Your task to perform on an android device: Is it going to rain this weekend? Image 0: 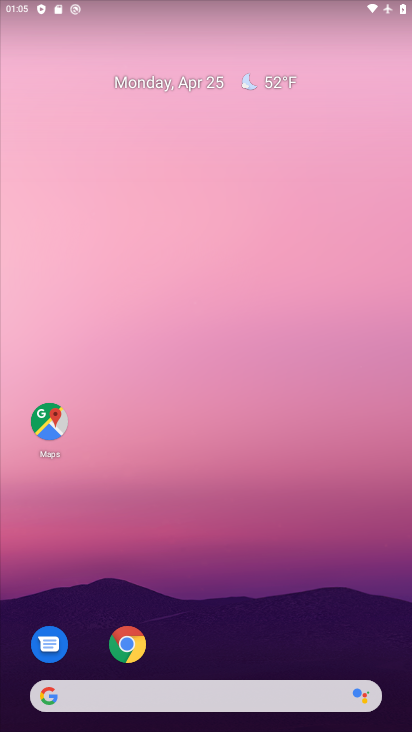
Step 0: click (289, 256)
Your task to perform on an android device: Is it going to rain this weekend? Image 1: 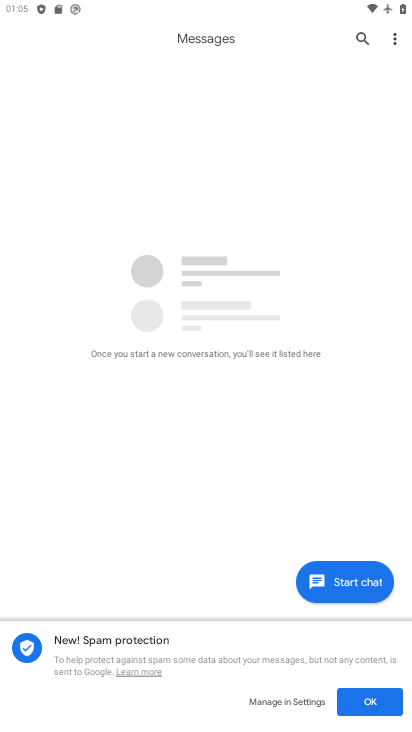
Step 1: press home button
Your task to perform on an android device: Is it going to rain this weekend? Image 2: 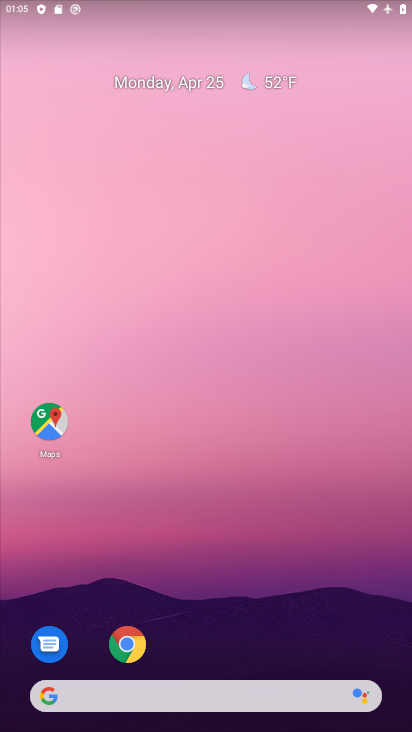
Step 2: drag from (208, 638) to (225, 103)
Your task to perform on an android device: Is it going to rain this weekend? Image 3: 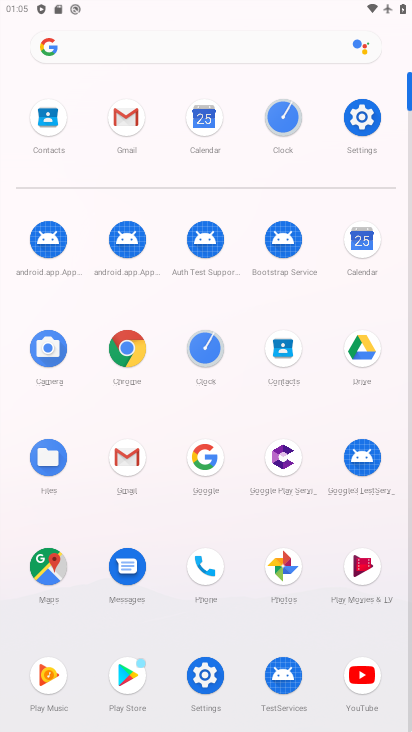
Step 3: click (364, 252)
Your task to perform on an android device: Is it going to rain this weekend? Image 4: 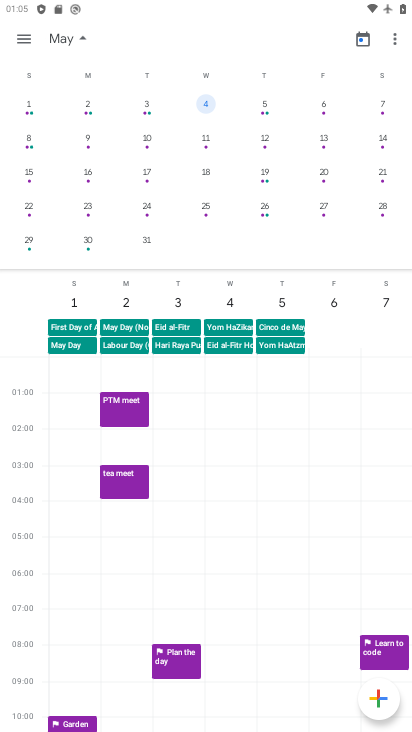
Step 4: click (22, 47)
Your task to perform on an android device: Is it going to rain this weekend? Image 5: 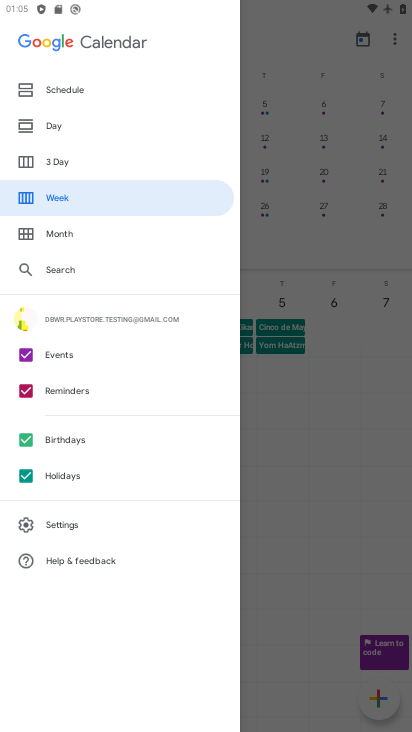
Step 5: press home button
Your task to perform on an android device: Is it going to rain this weekend? Image 6: 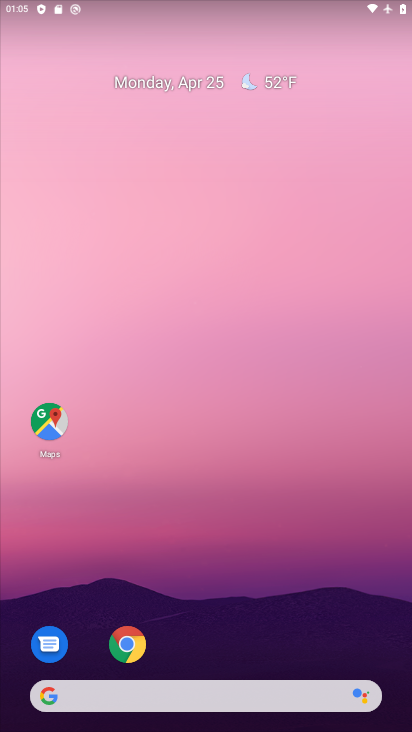
Step 6: drag from (197, 649) to (218, 36)
Your task to perform on an android device: Is it going to rain this weekend? Image 7: 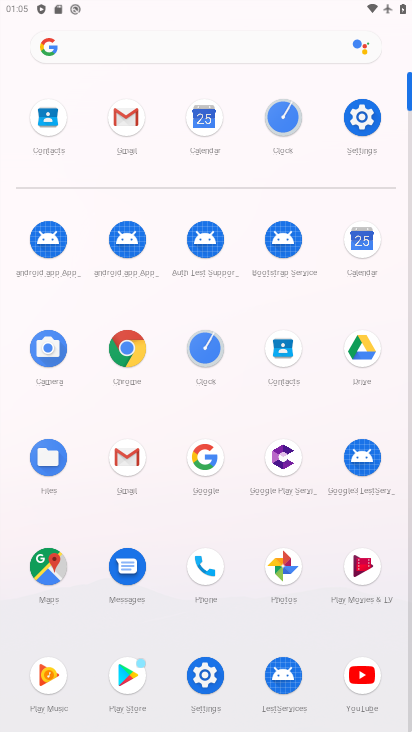
Step 7: click (239, 42)
Your task to perform on an android device: Is it going to rain this weekend? Image 8: 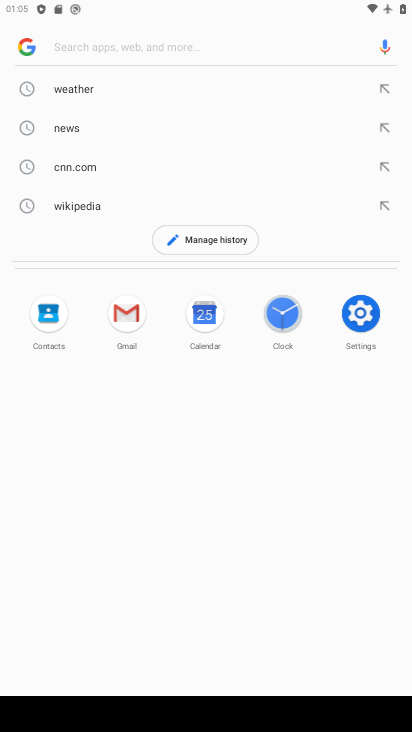
Step 8: click (167, 98)
Your task to perform on an android device: Is it going to rain this weekend? Image 9: 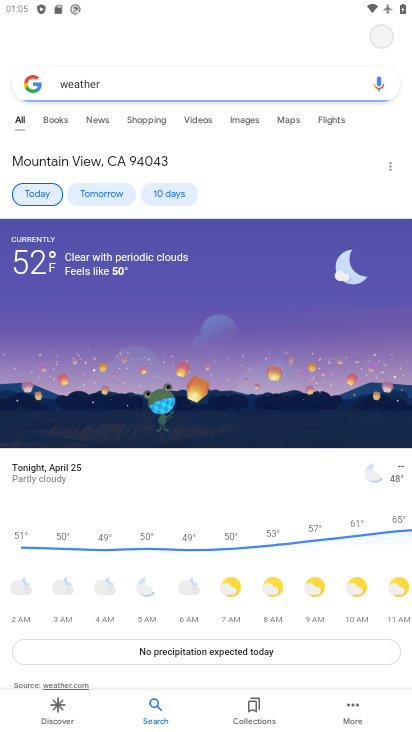
Step 9: task complete